Your task to perform on an android device: Open Chrome and go to the settings page Image 0: 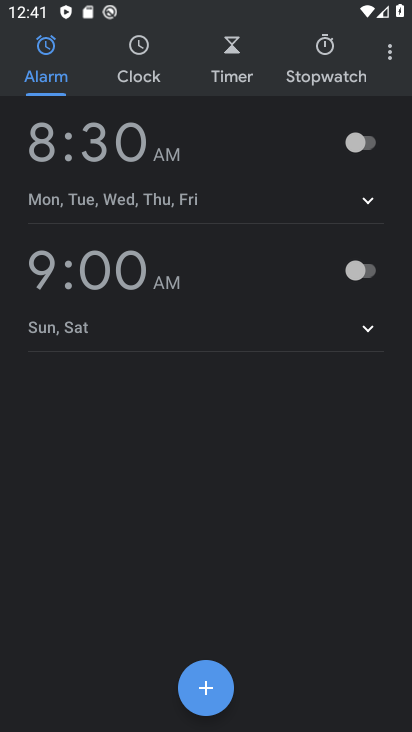
Step 0: click (298, 138)
Your task to perform on an android device: Open Chrome and go to the settings page Image 1: 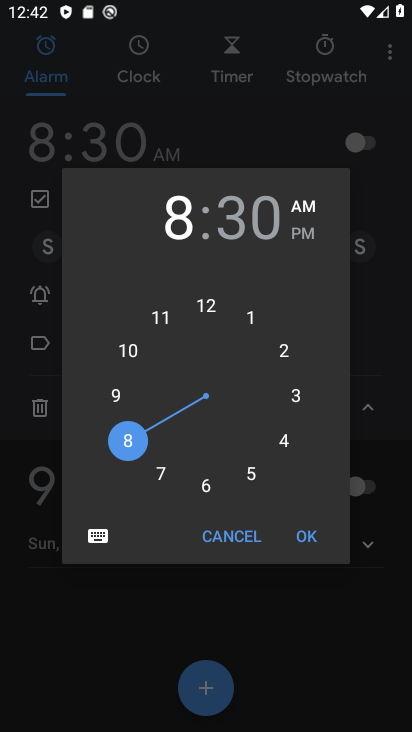
Step 1: click (307, 525)
Your task to perform on an android device: Open Chrome and go to the settings page Image 2: 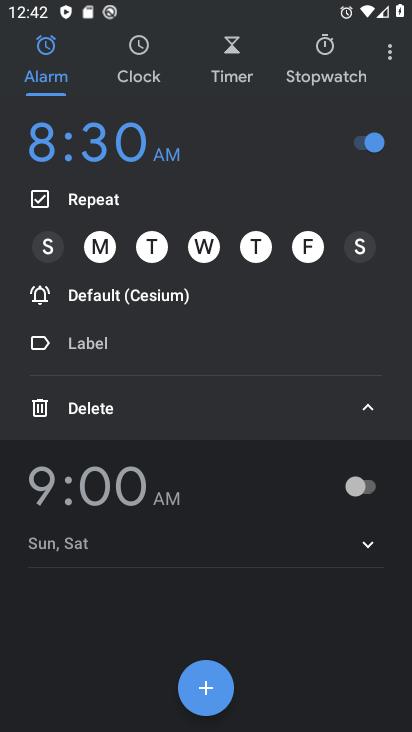
Step 2: task complete